Your task to perform on an android device: Is it going to rain today? Image 0: 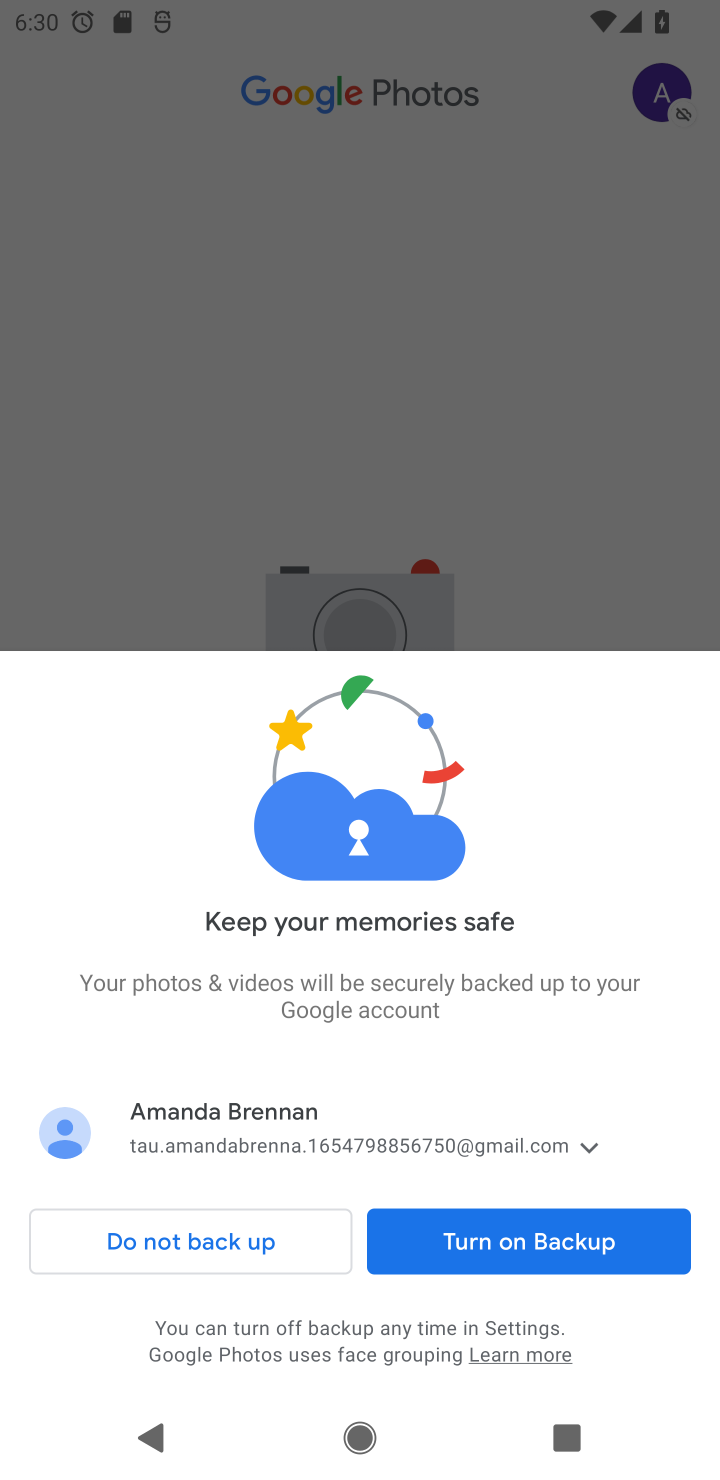
Step 0: press home button
Your task to perform on an android device: Is it going to rain today? Image 1: 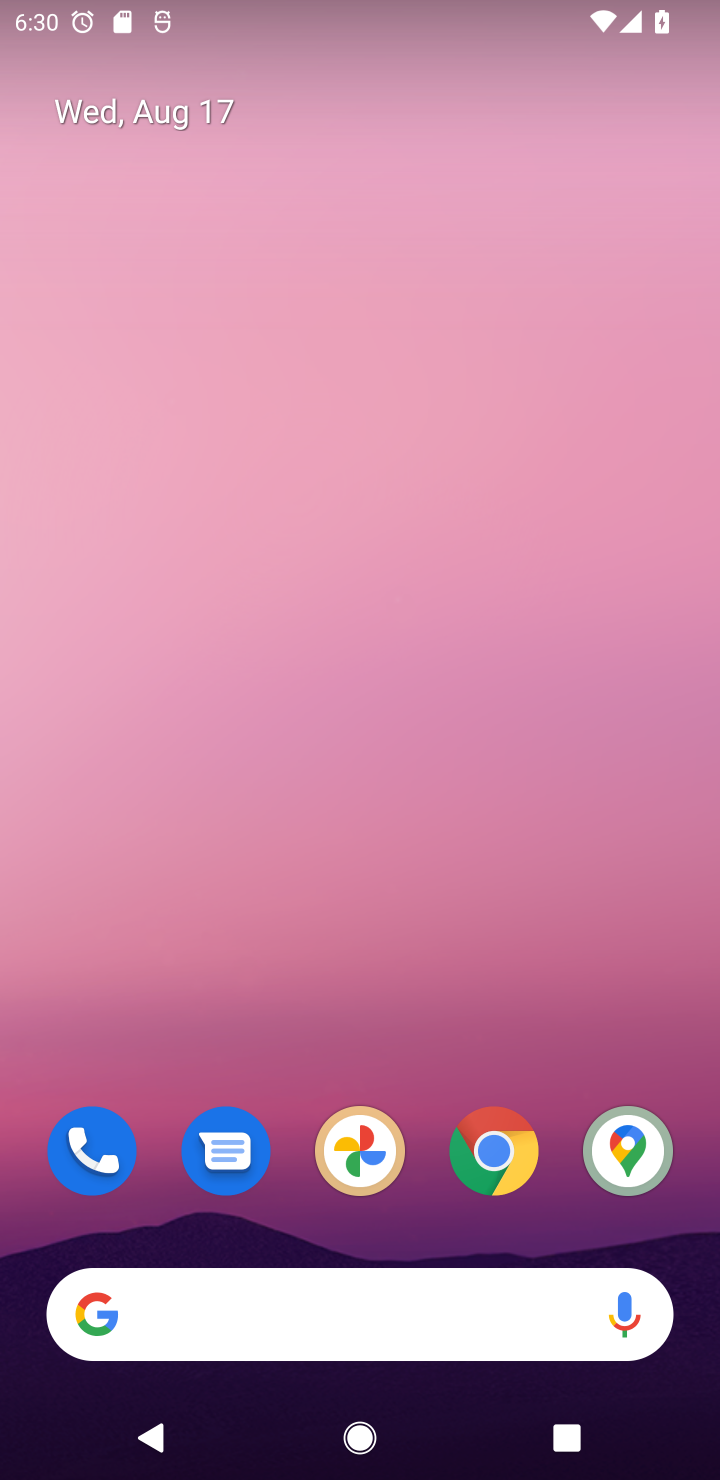
Step 1: drag from (400, 1249) to (403, 108)
Your task to perform on an android device: Is it going to rain today? Image 2: 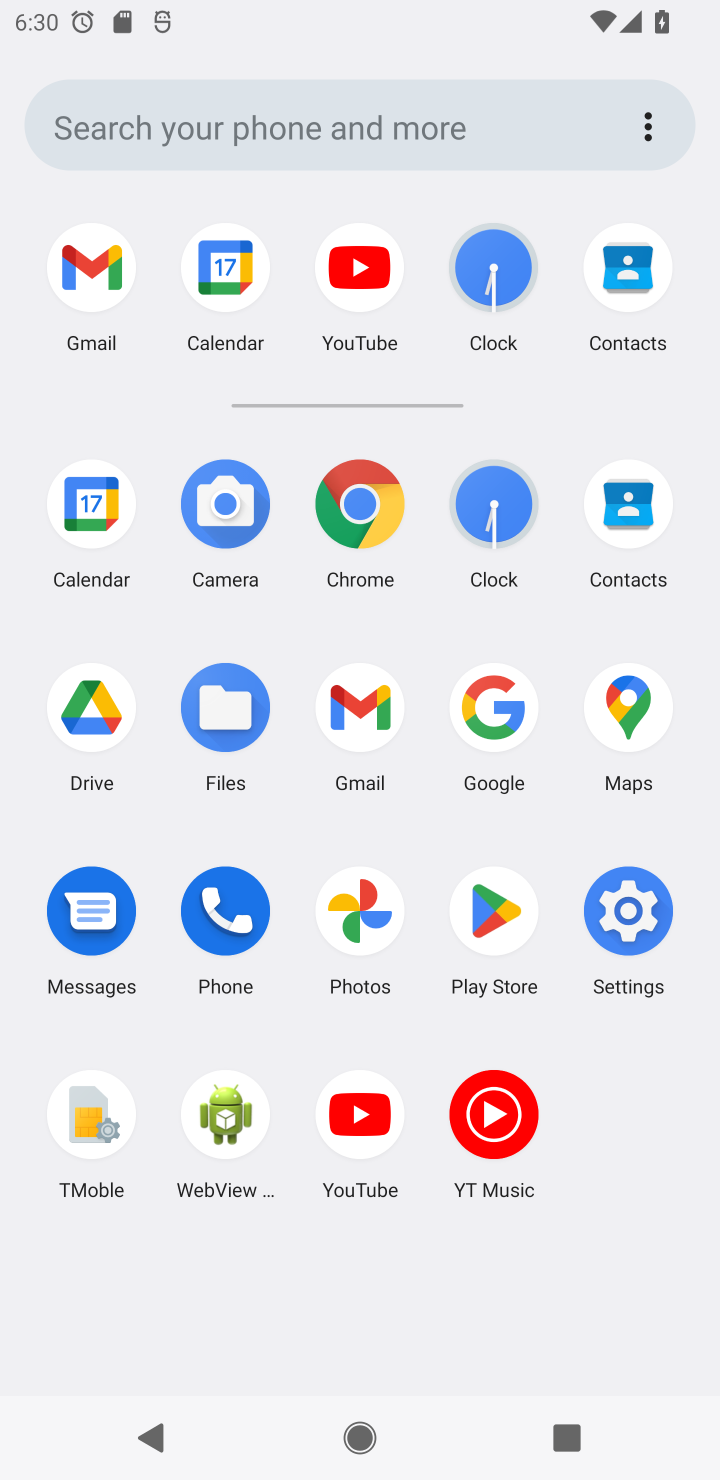
Step 2: click (398, 135)
Your task to perform on an android device: Is it going to rain today? Image 3: 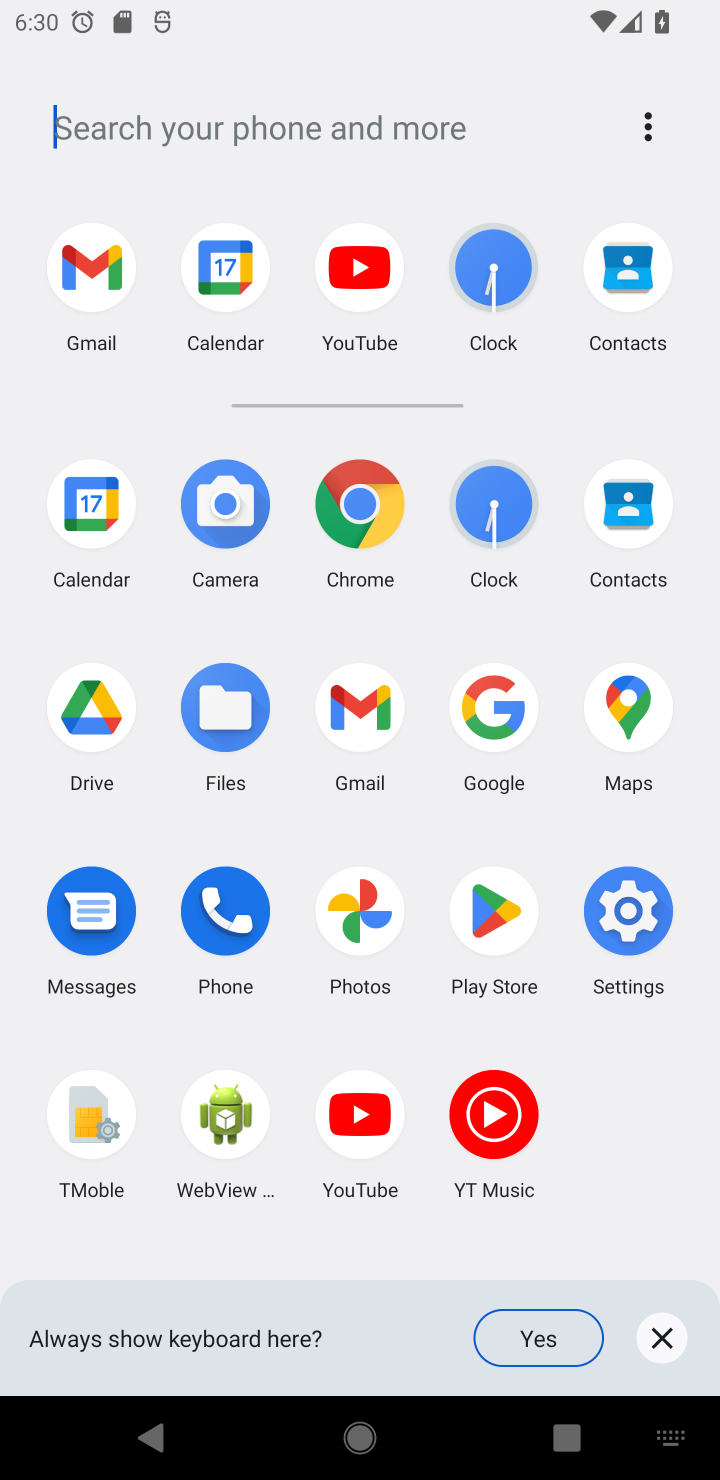
Step 3: type "rain"
Your task to perform on an android device: Is it going to rain today? Image 4: 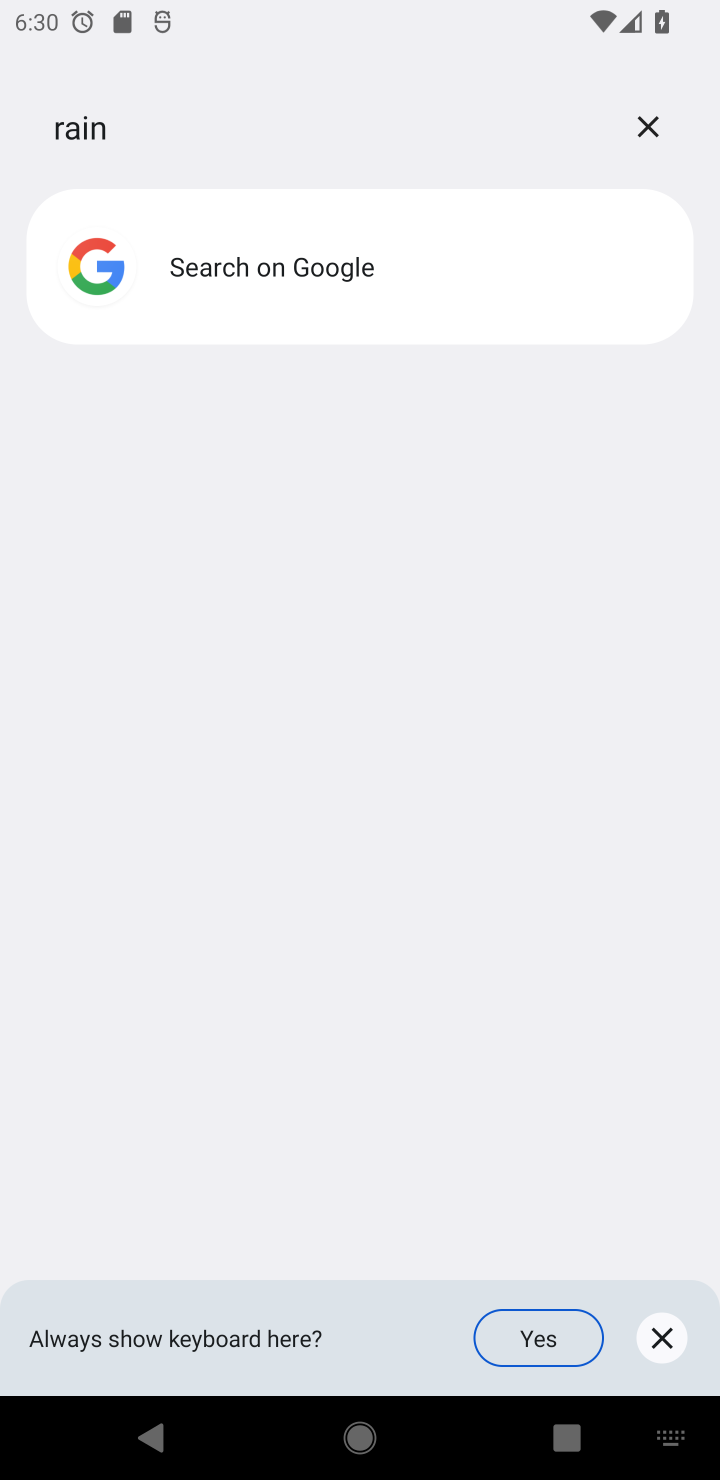
Step 4: click (356, 288)
Your task to perform on an android device: Is it going to rain today? Image 5: 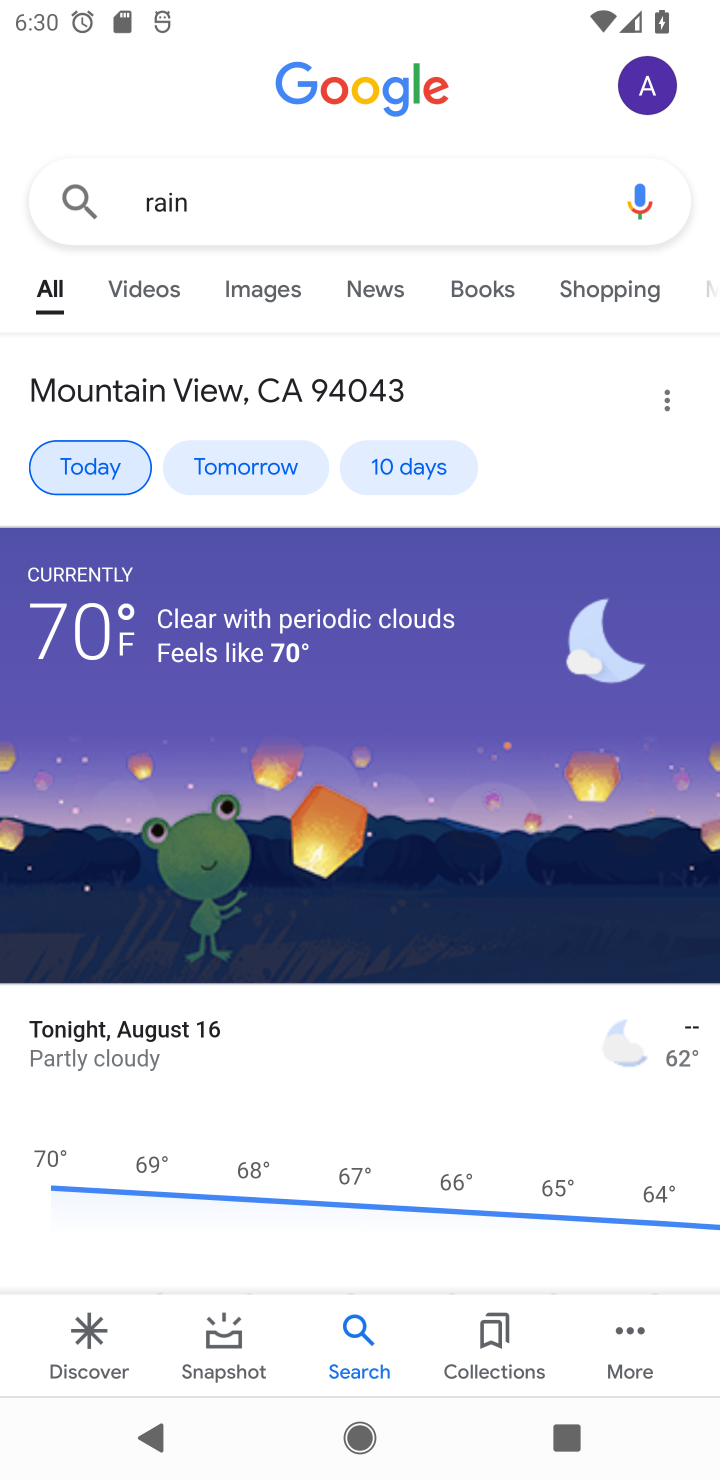
Step 5: task complete